Your task to perform on an android device: change the upload size in google photos Image 0: 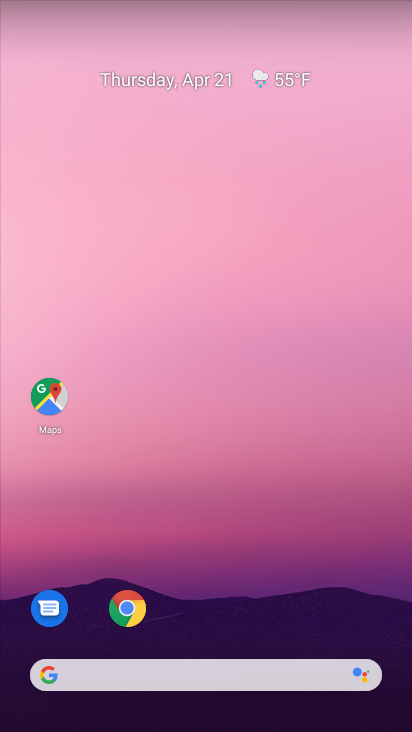
Step 0: press home button
Your task to perform on an android device: change the upload size in google photos Image 1: 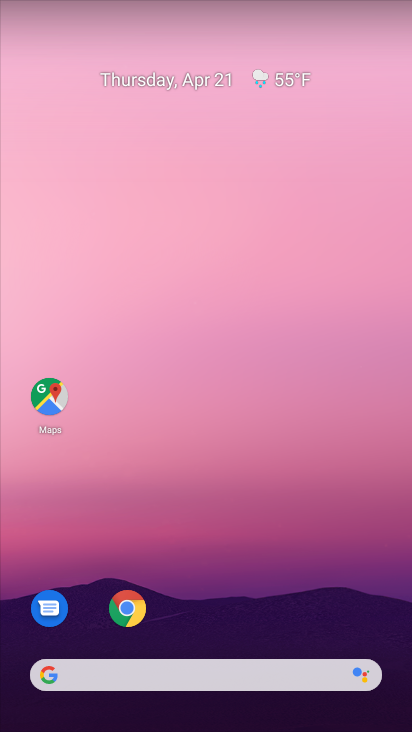
Step 1: drag from (183, 448) to (61, 52)
Your task to perform on an android device: change the upload size in google photos Image 2: 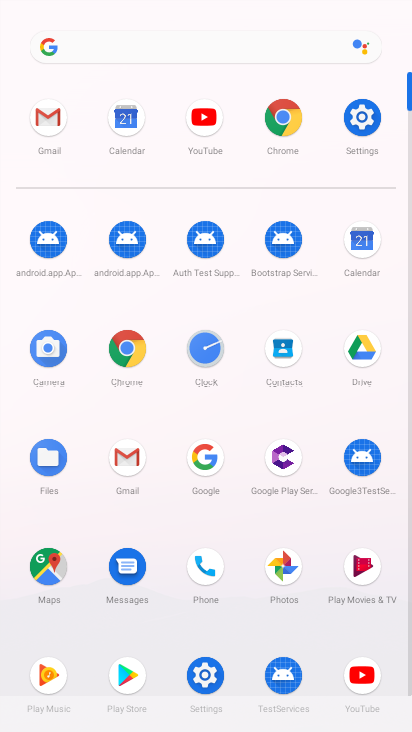
Step 2: click (285, 572)
Your task to perform on an android device: change the upload size in google photos Image 3: 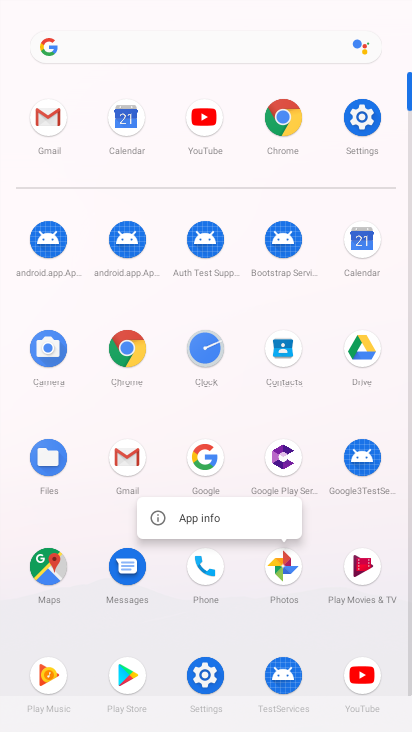
Step 3: click (286, 571)
Your task to perform on an android device: change the upload size in google photos Image 4: 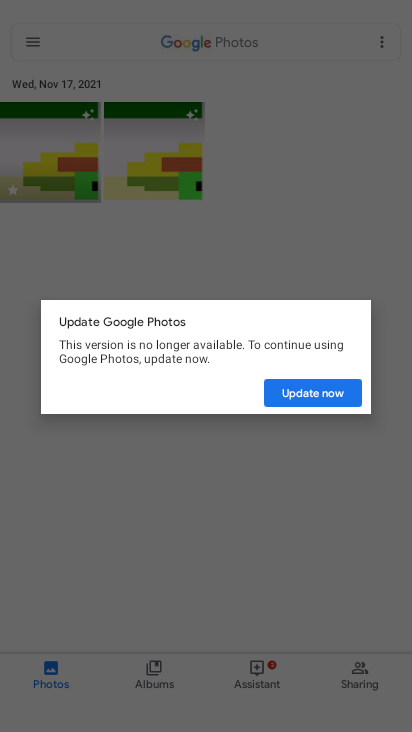
Step 4: click (319, 395)
Your task to perform on an android device: change the upload size in google photos Image 5: 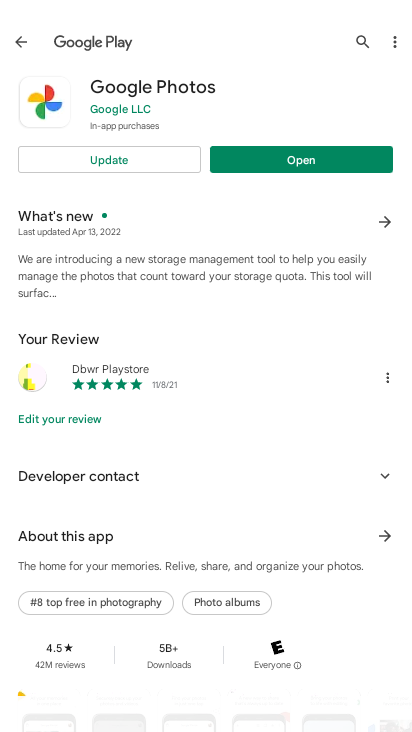
Step 5: click (123, 161)
Your task to perform on an android device: change the upload size in google photos Image 6: 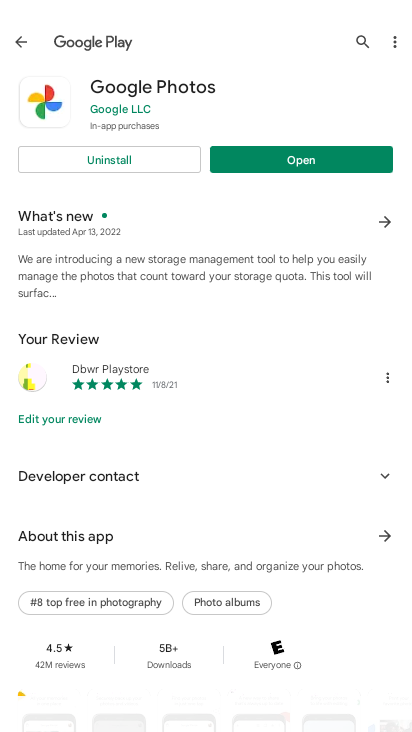
Step 6: click (265, 160)
Your task to perform on an android device: change the upload size in google photos Image 7: 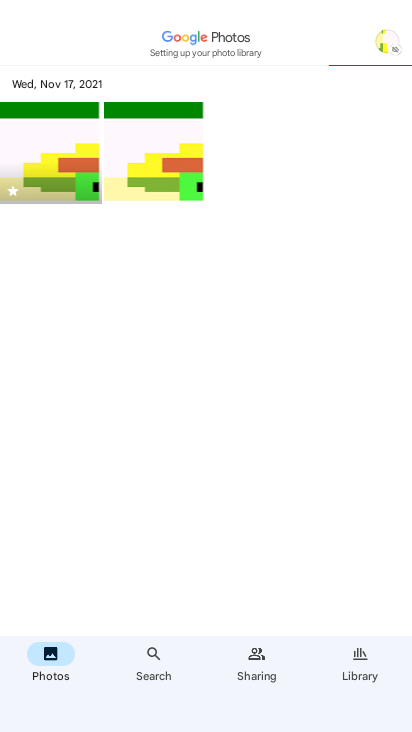
Step 7: click (387, 40)
Your task to perform on an android device: change the upload size in google photos Image 8: 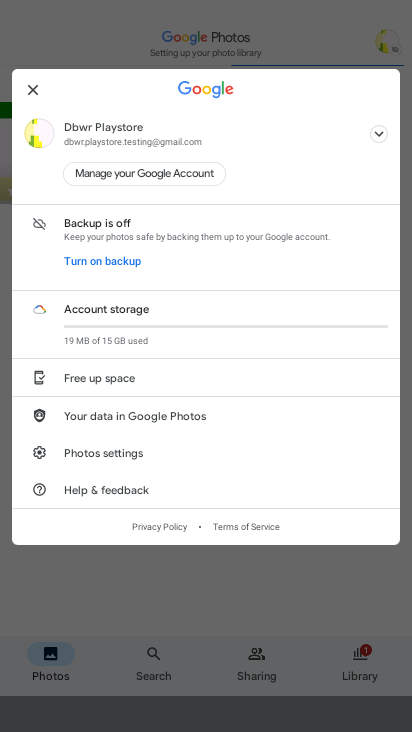
Step 8: click (109, 454)
Your task to perform on an android device: change the upload size in google photos Image 9: 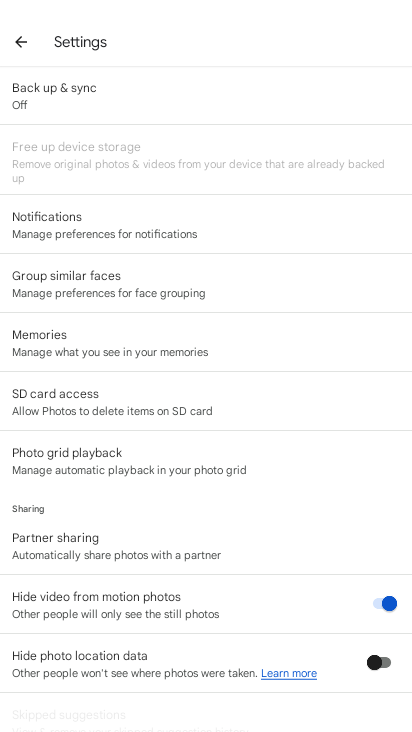
Step 9: click (57, 90)
Your task to perform on an android device: change the upload size in google photos Image 10: 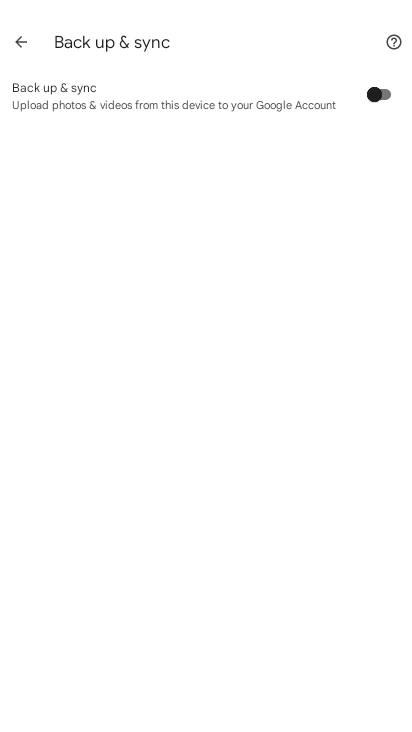
Step 10: click (20, 44)
Your task to perform on an android device: change the upload size in google photos Image 11: 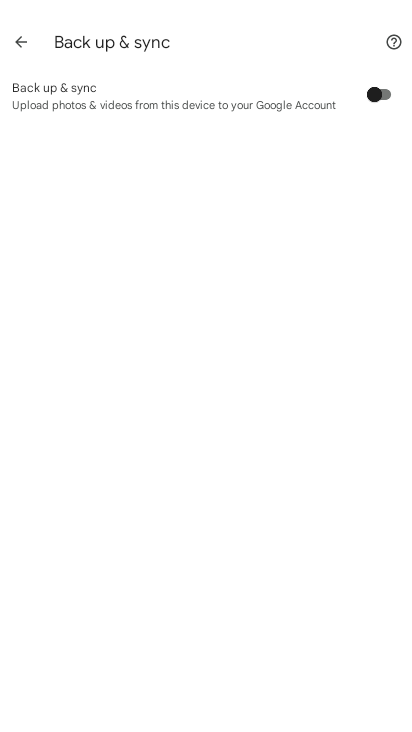
Step 11: press back button
Your task to perform on an android device: change the upload size in google photos Image 12: 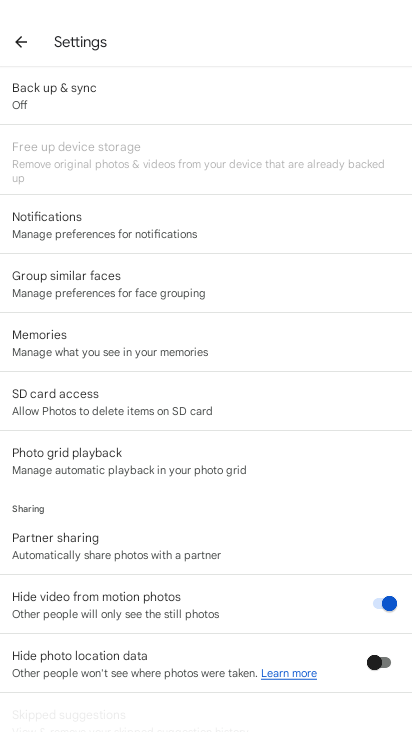
Step 12: drag from (49, 545) to (50, 634)
Your task to perform on an android device: change the upload size in google photos Image 13: 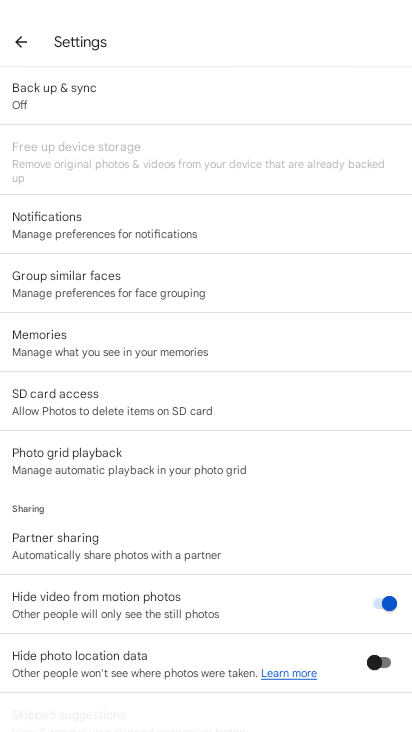
Step 13: click (49, 177)
Your task to perform on an android device: change the upload size in google photos Image 14: 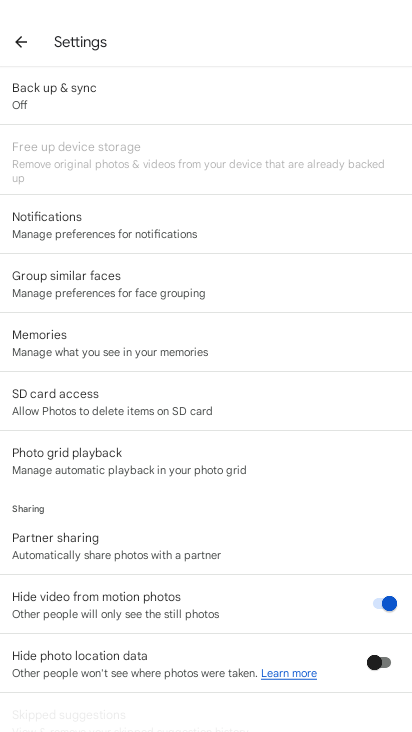
Step 14: click (19, 158)
Your task to perform on an android device: change the upload size in google photos Image 15: 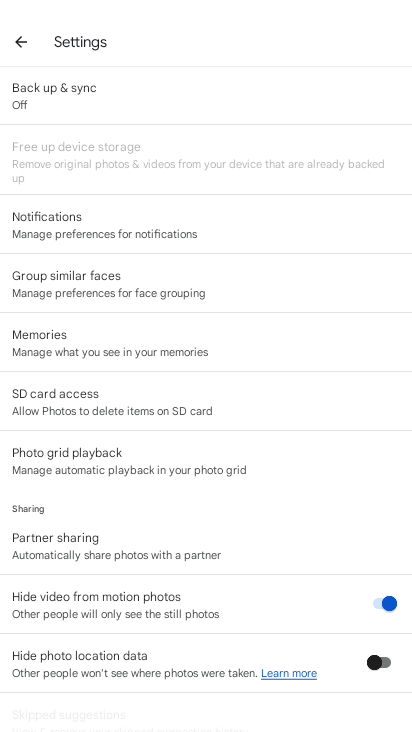
Step 15: task complete